Your task to perform on an android device: change the clock display to analog Image 0: 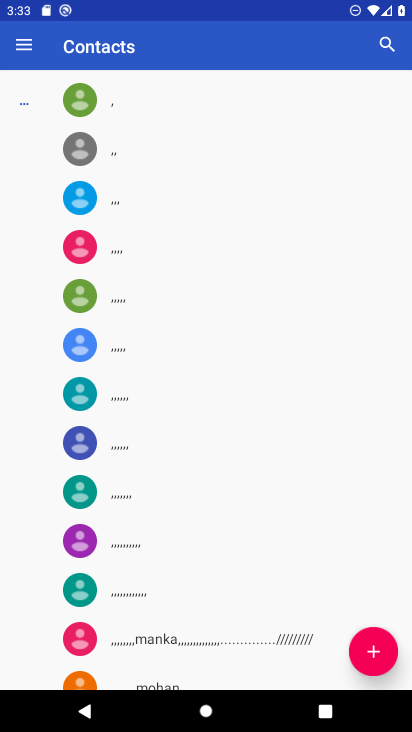
Step 0: press home button
Your task to perform on an android device: change the clock display to analog Image 1: 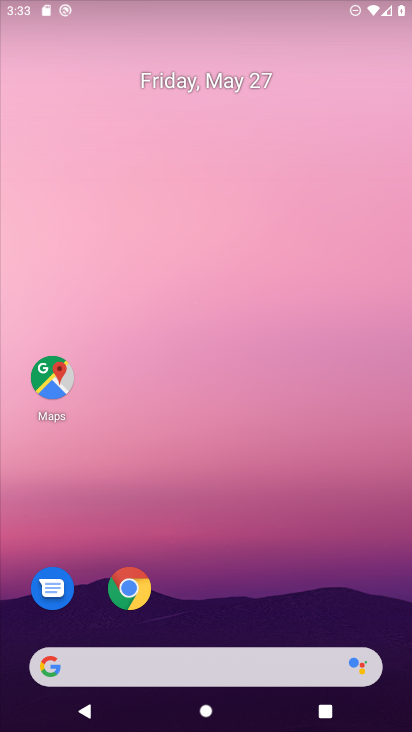
Step 1: drag from (304, 492) to (232, 106)
Your task to perform on an android device: change the clock display to analog Image 2: 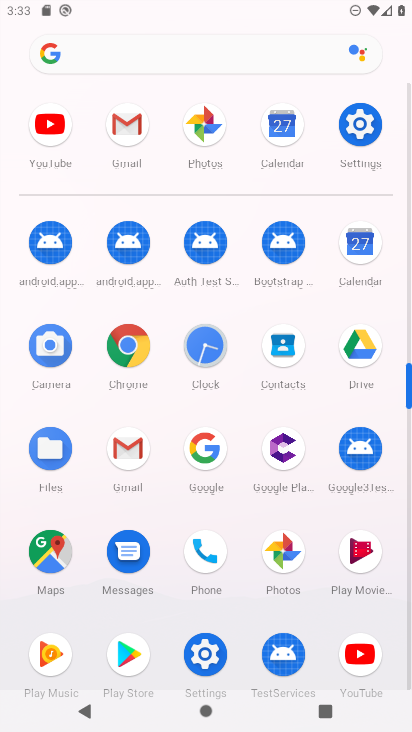
Step 2: click (213, 350)
Your task to perform on an android device: change the clock display to analog Image 3: 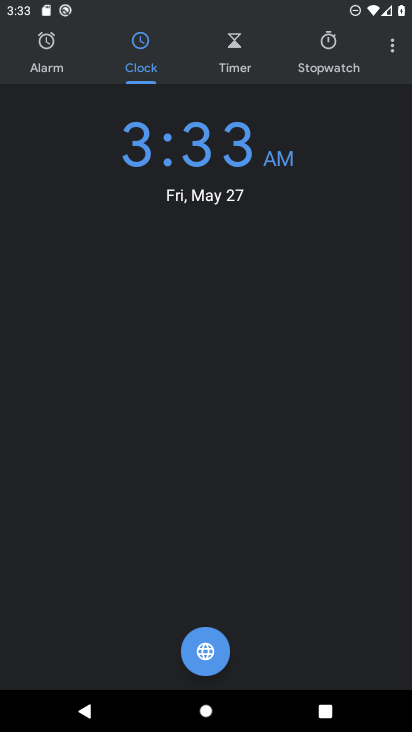
Step 3: click (389, 54)
Your task to perform on an android device: change the clock display to analog Image 4: 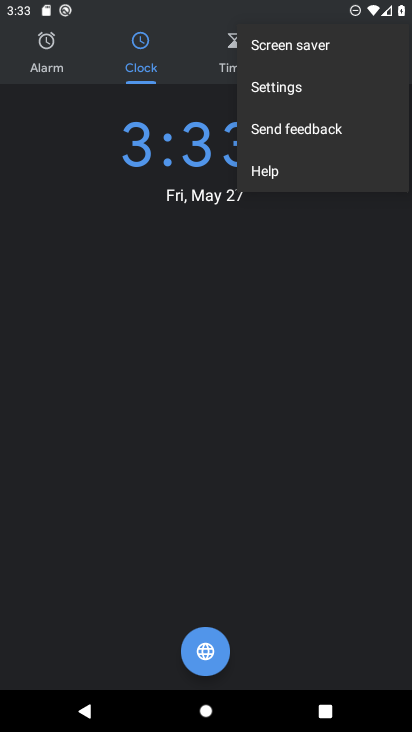
Step 4: click (280, 97)
Your task to perform on an android device: change the clock display to analog Image 5: 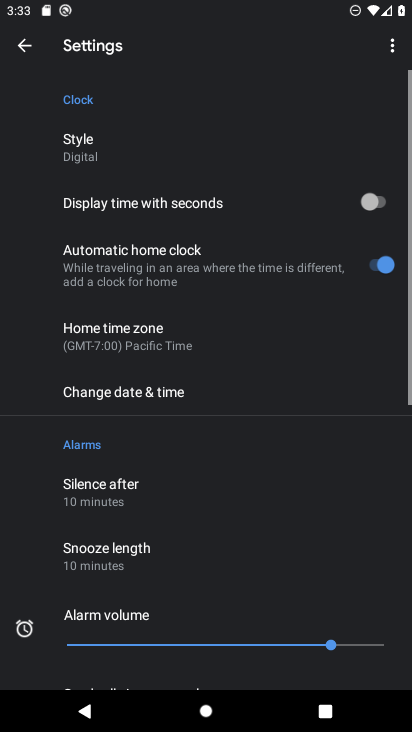
Step 5: click (173, 151)
Your task to perform on an android device: change the clock display to analog Image 6: 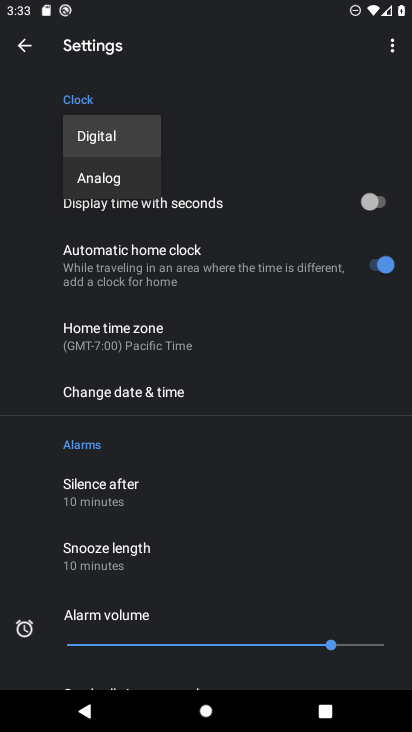
Step 6: click (122, 178)
Your task to perform on an android device: change the clock display to analog Image 7: 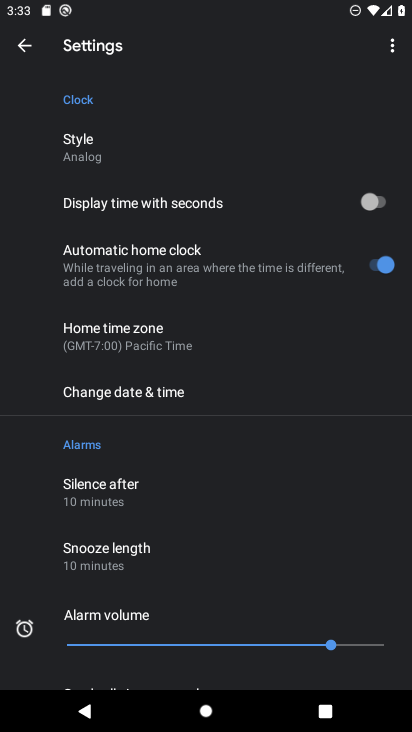
Step 7: task complete